Your task to perform on an android device: Open settings on Google Maps Image 0: 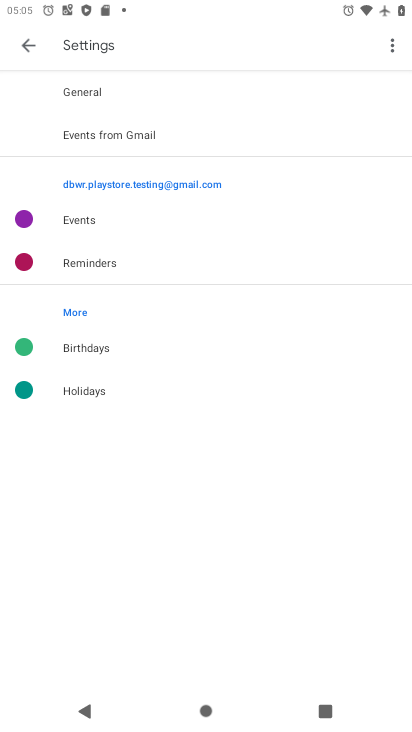
Step 0: press back button
Your task to perform on an android device: Open settings on Google Maps Image 1: 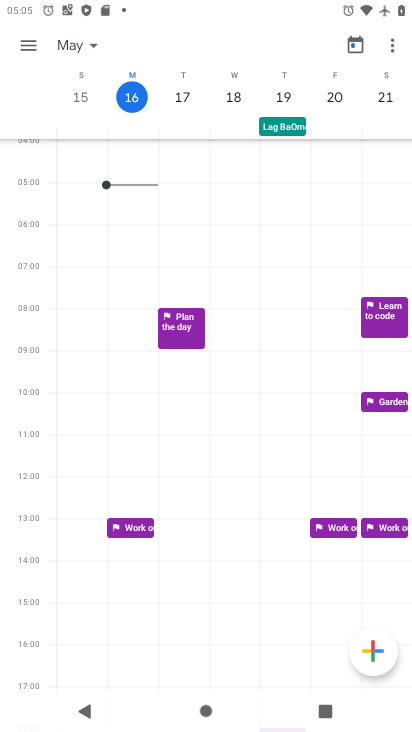
Step 1: press back button
Your task to perform on an android device: Open settings on Google Maps Image 2: 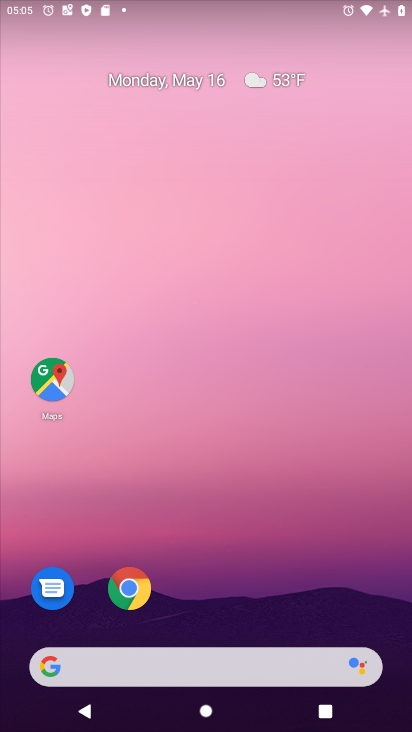
Step 2: drag from (265, 540) to (250, 32)
Your task to perform on an android device: Open settings on Google Maps Image 3: 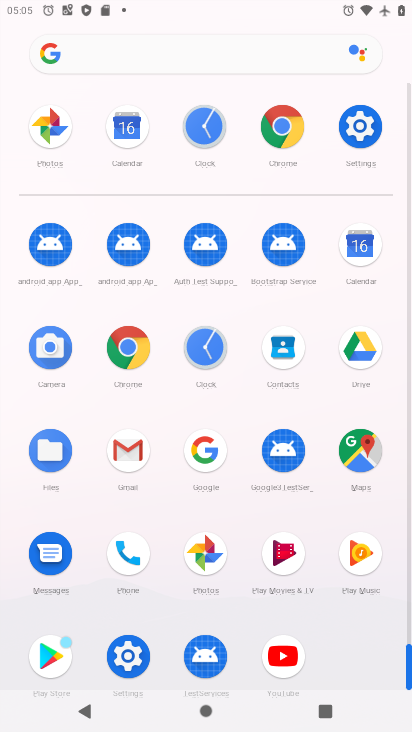
Step 3: click (363, 449)
Your task to perform on an android device: Open settings on Google Maps Image 4: 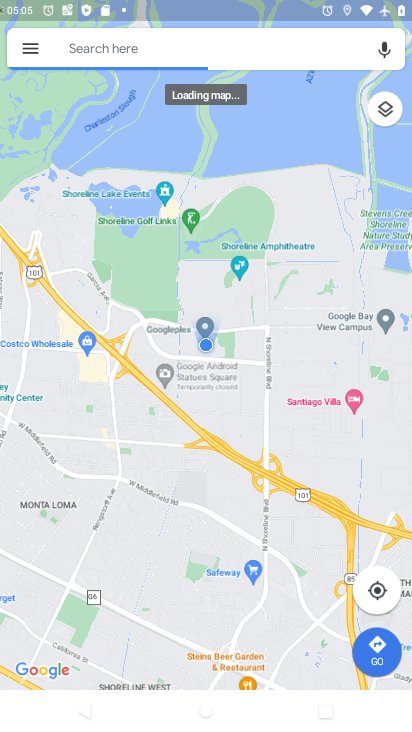
Step 4: click (32, 51)
Your task to perform on an android device: Open settings on Google Maps Image 5: 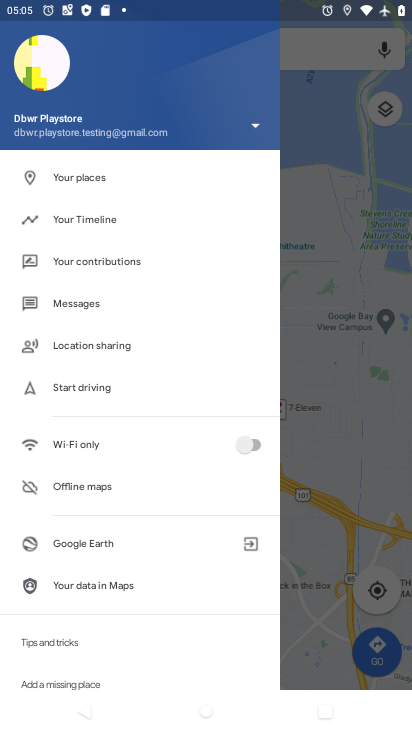
Step 5: drag from (95, 567) to (94, 207)
Your task to perform on an android device: Open settings on Google Maps Image 6: 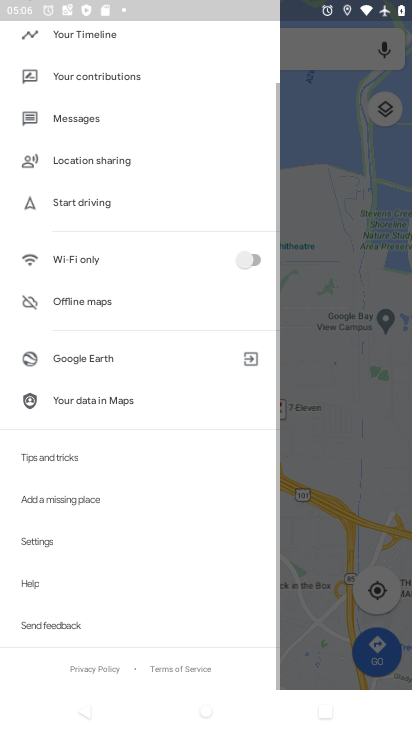
Step 6: click (55, 543)
Your task to perform on an android device: Open settings on Google Maps Image 7: 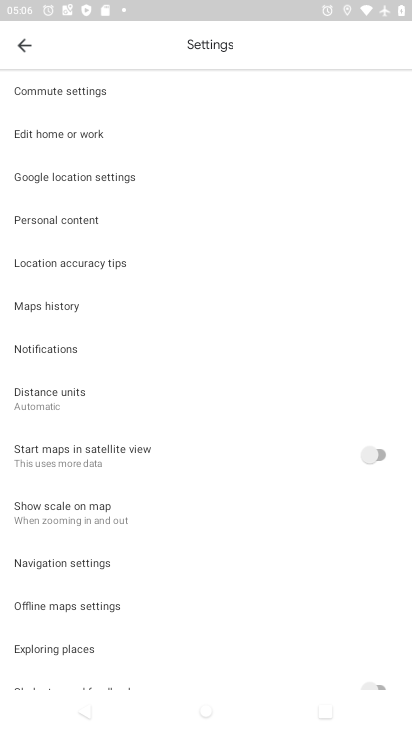
Step 7: task complete